Your task to perform on an android device: turn on wifi Image 0: 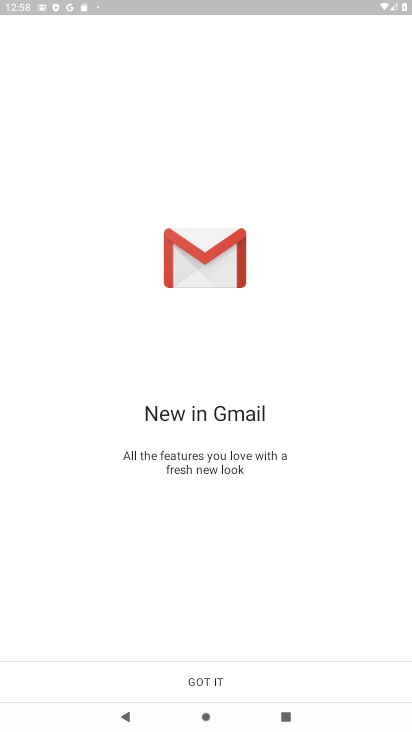
Step 0: press home button
Your task to perform on an android device: turn on wifi Image 1: 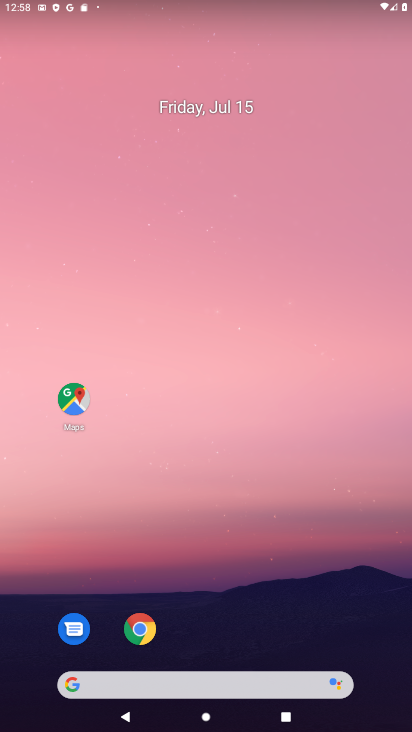
Step 1: drag from (373, 657) to (262, 72)
Your task to perform on an android device: turn on wifi Image 2: 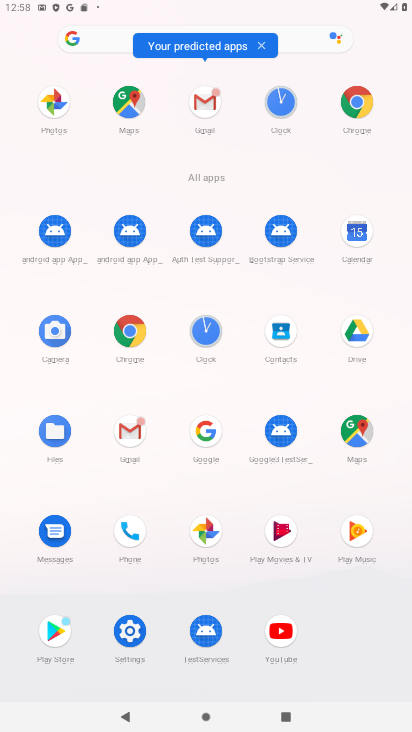
Step 2: click (133, 630)
Your task to perform on an android device: turn on wifi Image 3: 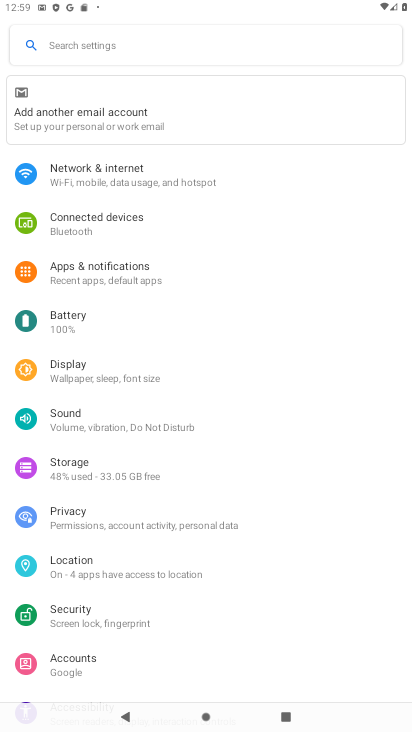
Step 3: click (75, 163)
Your task to perform on an android device: turn on wifi Image 4: 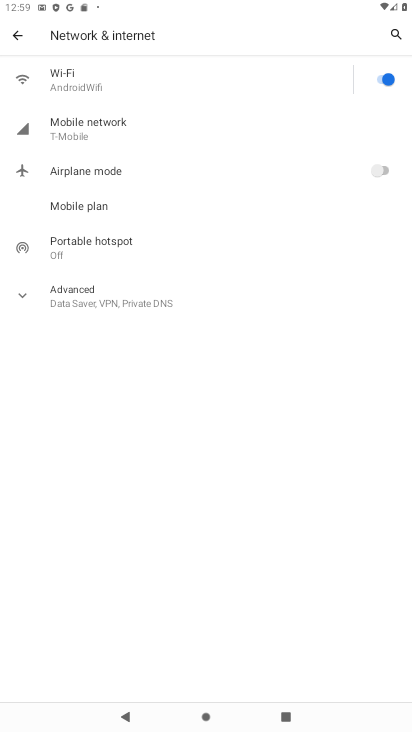
Step 4: task complete